Your task to perform on an android device: delete browsing data in the chrome app Image 0: 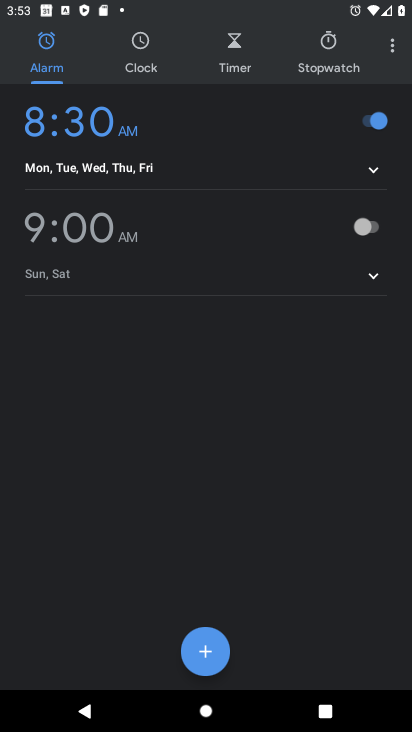
Step 0: press home button
Your task to perform on an android device: delete browsing data in the chrome app Image 1: 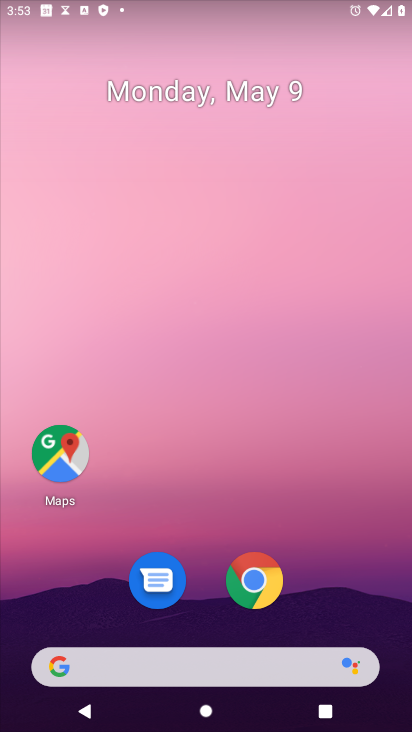
Step 1: click (243, 566)
Your task to perform on an android device: delete browsing data in the chrome app Image 2: 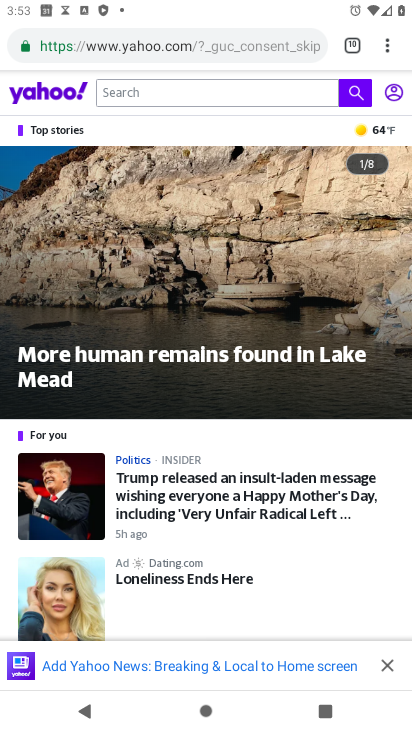
Step 2: click (386, 41)
Your task to perform on an android device: delete browsing data in the chrome app Image 3: 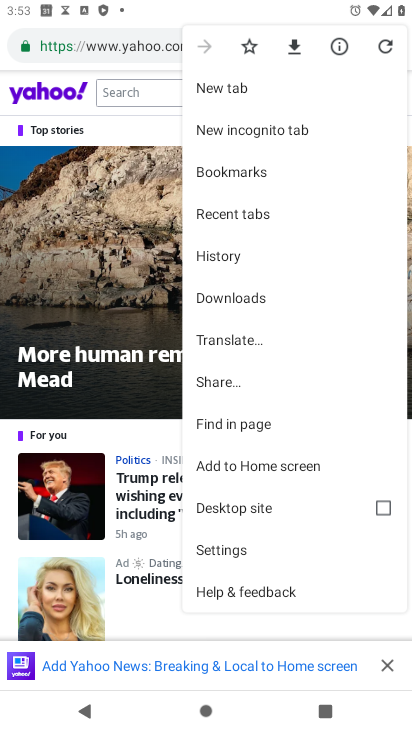
Step 3: click (291, 255)
Your task to perform on an android device: delete browsing data in the chrome app Image 4: 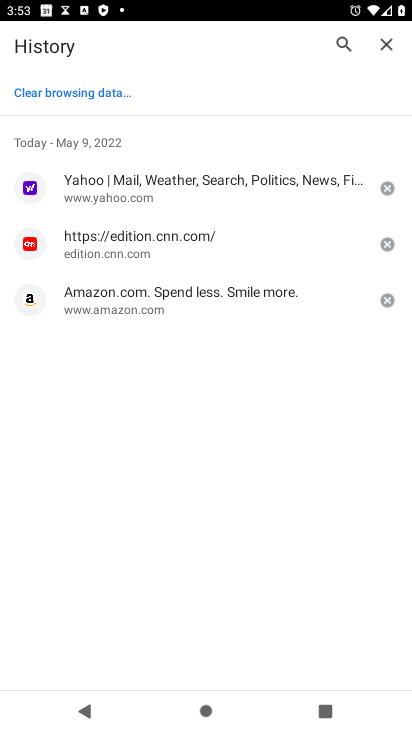
Step 4: click (97, 94)
Your task to perform on an android device: delete browsing data in the chrome app Image 5: 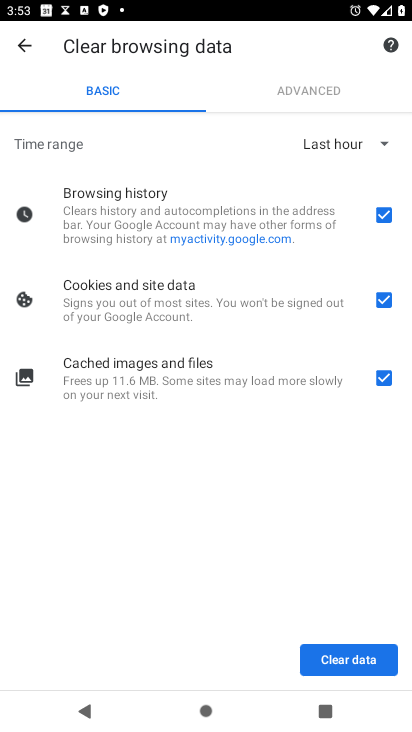
Step 5: click (334, 660)
Your task to perform on an android device: delete browsing data in the chrome app Image 6: 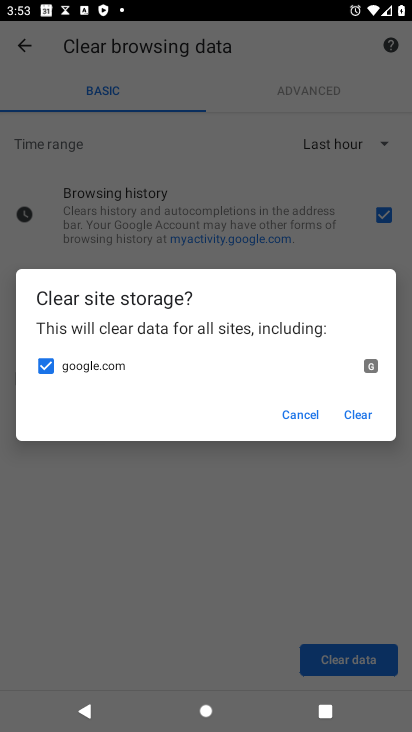
Step 6: click (360, 413)
Your task to perform on an android device: delete browsing data in the chrome app Image 7: 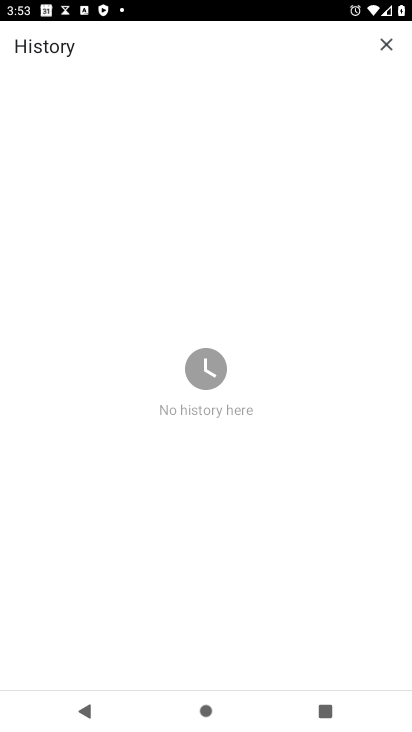
Step 7: task complete